Your task to perform on an android device: Show me productivity apps on the Play Store Image 0: 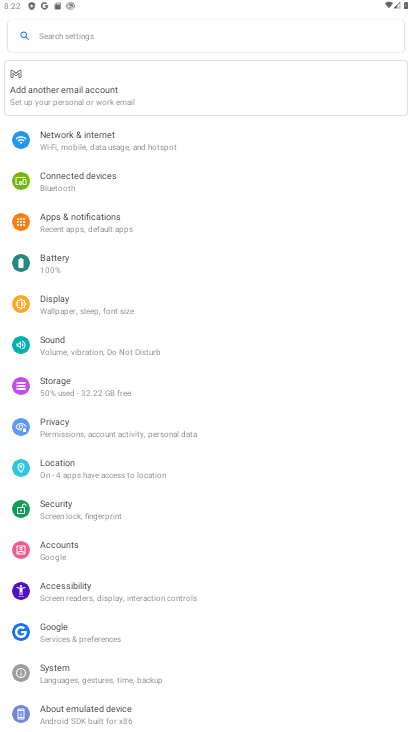
Step 0: task complete